Your task to perform on an android device: Open sound settings Image 0: 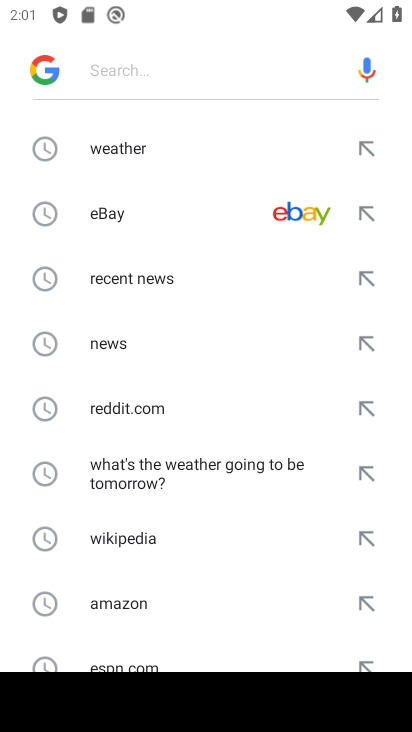
Step 0: press home button
Your task to perform on an android device: Open sound settings Image 1: 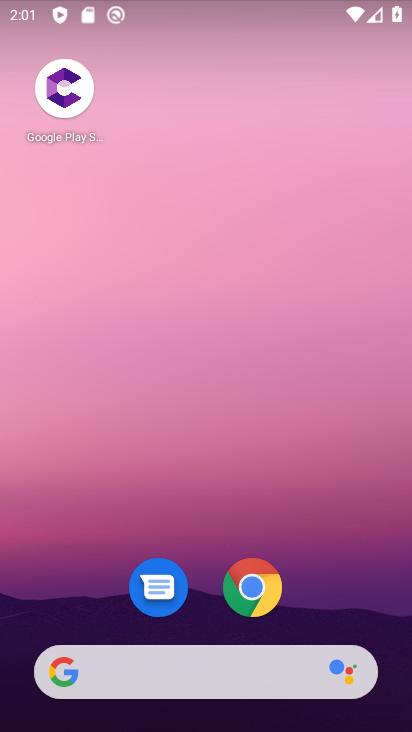
Step 1: drag from (317, 603) to (323, 55)
Your task to perform on an android device: Open sound settings Image 2: 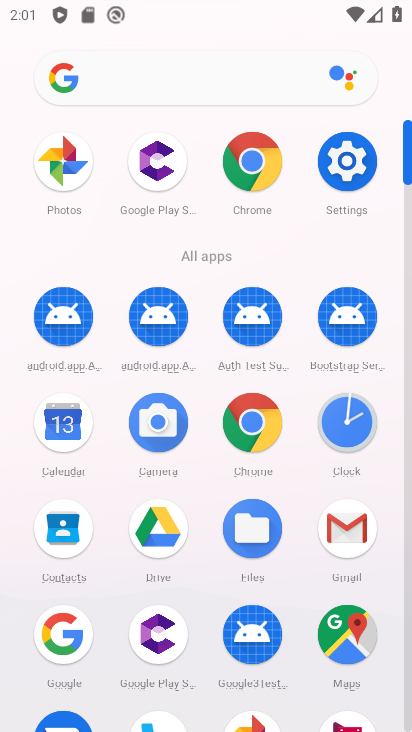
Step 2: click (351, 162)
Your task to perform on an android device: Open sound settings Image 3: 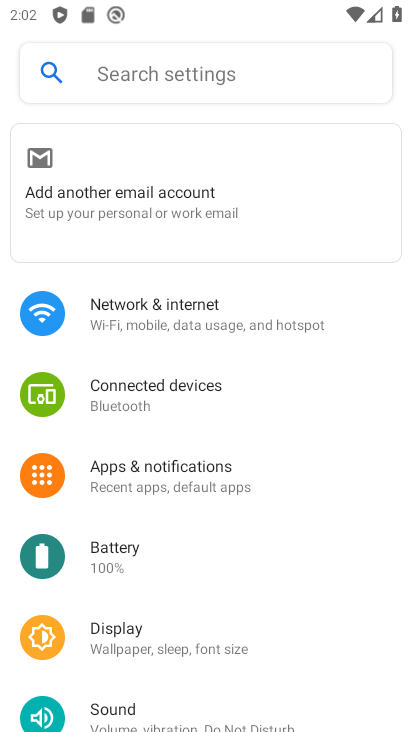
Step 3: click (153, 696)
Your task to perform on an android device: Open sound settings Image 4: 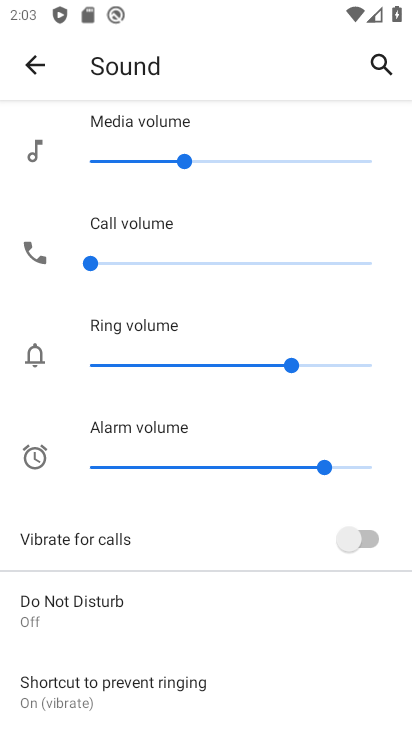
Step 4: task complete